Your task to perform on an android device: delete a single message in the gmail app Image 0: 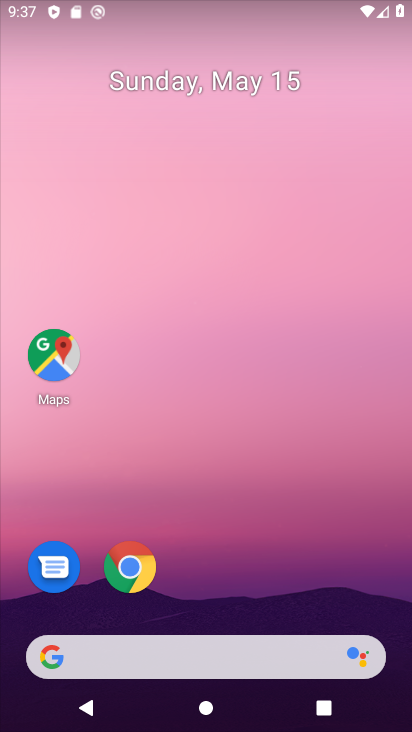
Step 0: drag from (195, 182) to (192, 93)
Your task to perform on an android device: delete a single message in the gmail app Image 1: 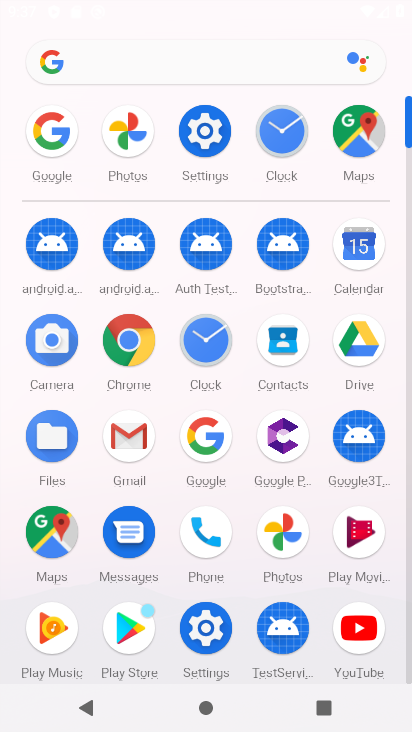
Step 1: drag from (207, 595) to (244, 86)
Your task to perform on an android device: delete a single message in the gmail app Image 2: 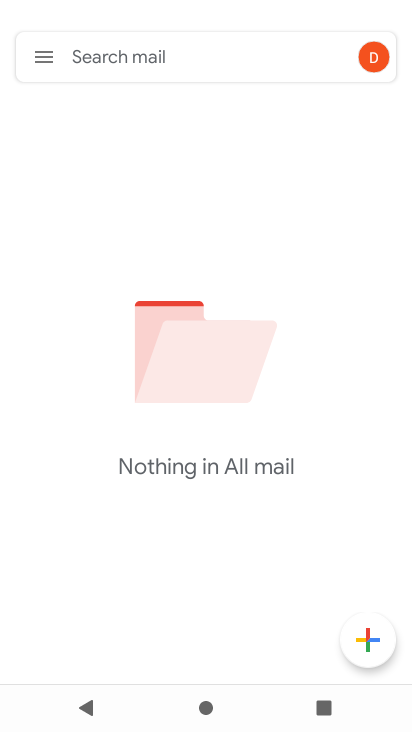
Step 2: click (127, 129)
Your task to perform on an android device: delete a single message in the gmail app Image 3: 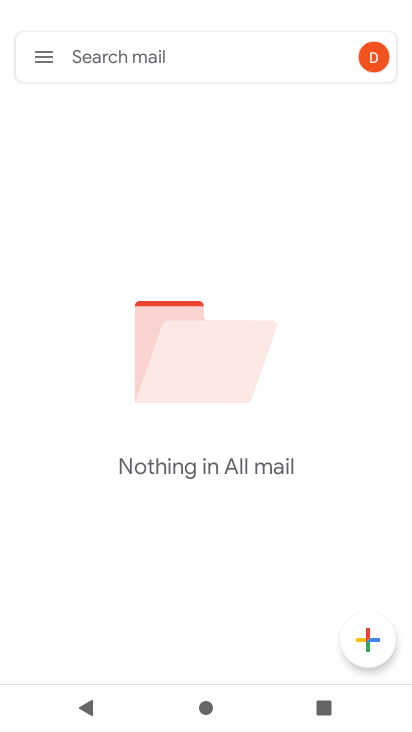
Step 3: task complete